Your task to perform on an android device: open app "Grab" (install if not already installed) and enter user name: "interspersion@gmail.com" and password: "aristocrats" Image 0: 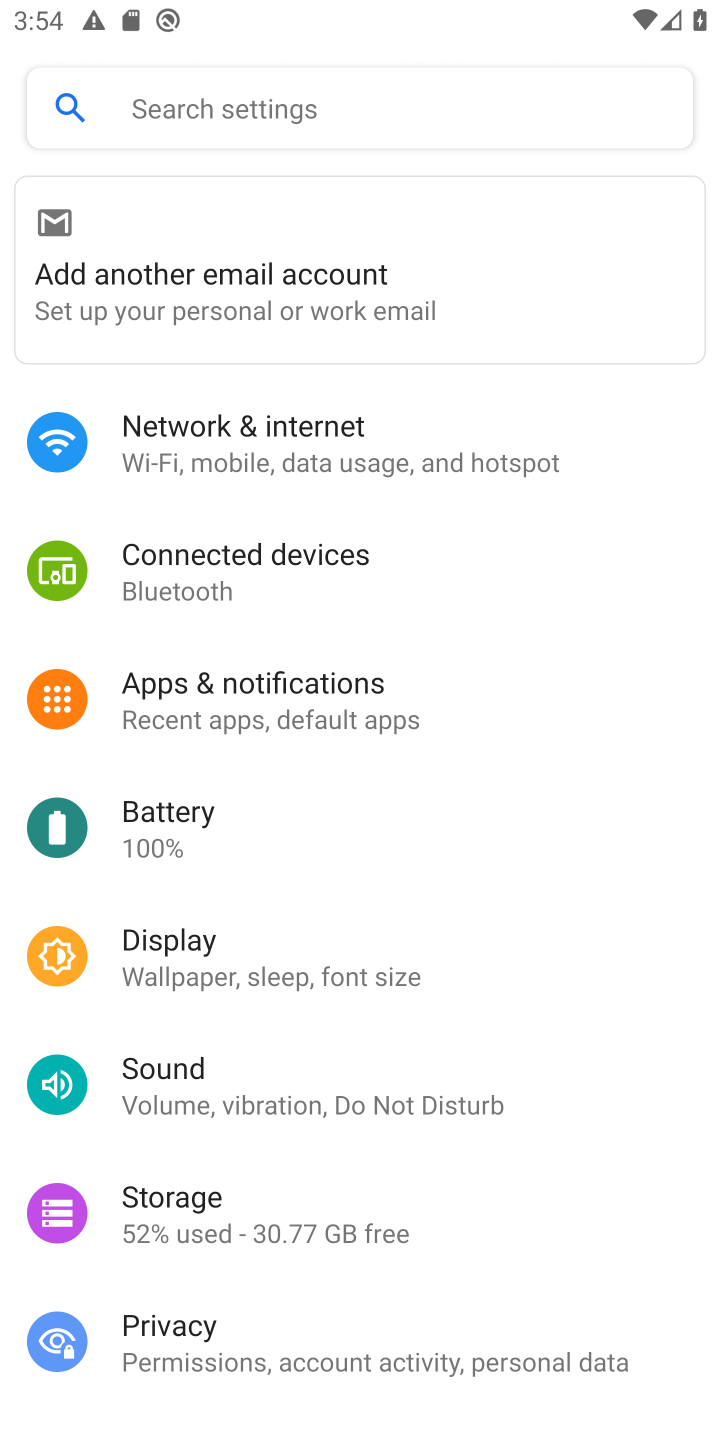
Step 0: press home button
Your task to perform on an android device: open app "Grab" (install if not already installed) and enter user name: "interspersion@gmail.com" and password: "aristocrats" Image 1: 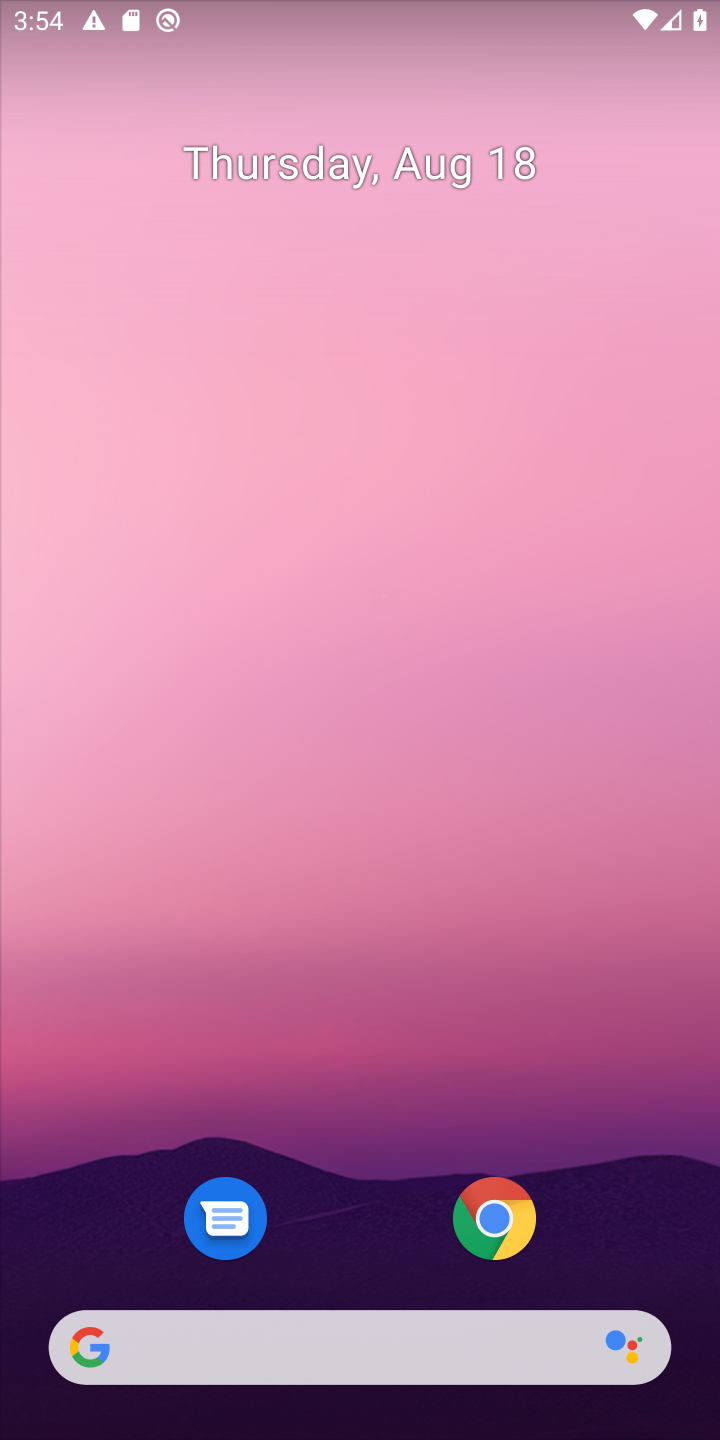
Step 1: drag from (366, 1165) to (364, 333)
Your task to perform on an android device: open app "Grab" (install if not already installed) and enter user name: "interspersion@gmail.com" and password: "aristocrats" Image 2: 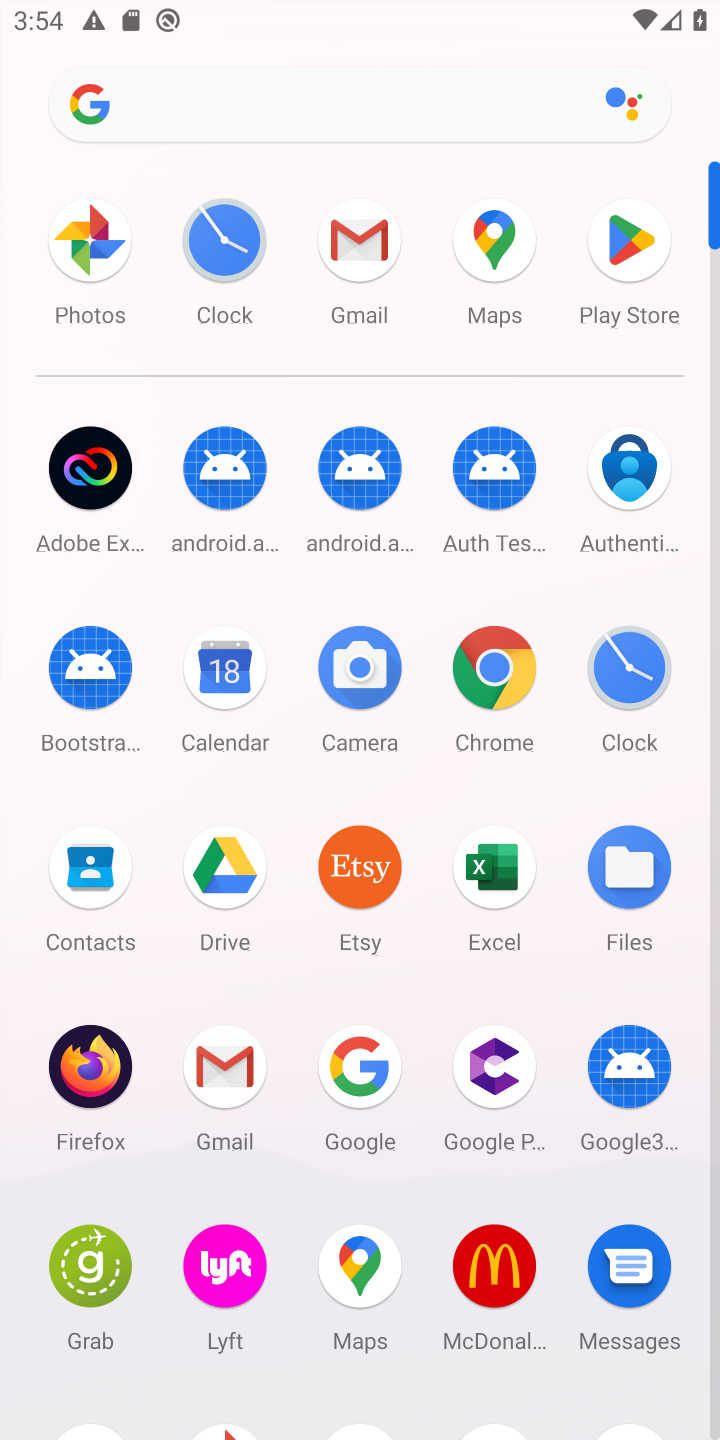
Step 2: click (637, 254)
Your task to perform on an android device: open app "Grab" (install if not already installed) and enter user name: "interspersion@gmail.com" and password: "aristocrats" Image 3: 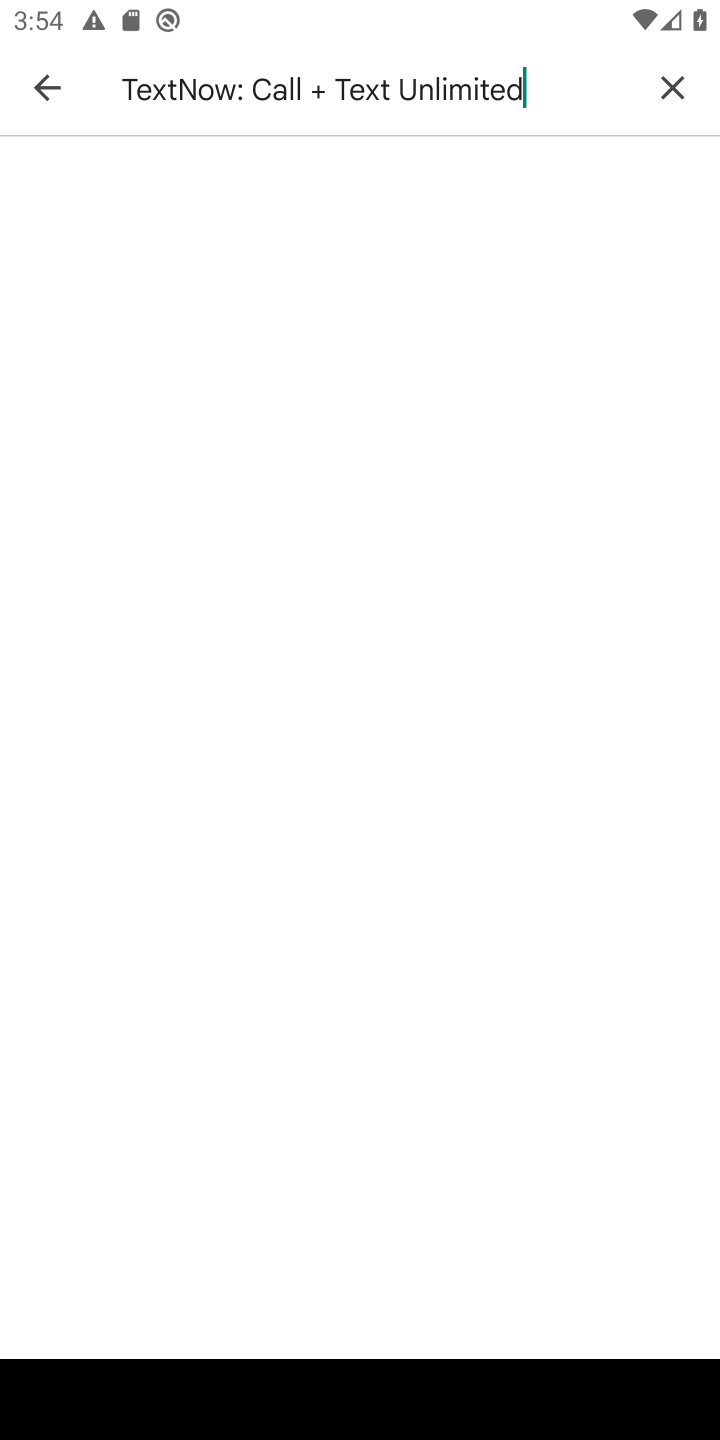
Step 3: click (668, 82)
Your task to perform on an android device: open app "Grab" (install if not already installed) and enter user name: "interspersion@gmail.com" and password: "aristocrats" Image 4: 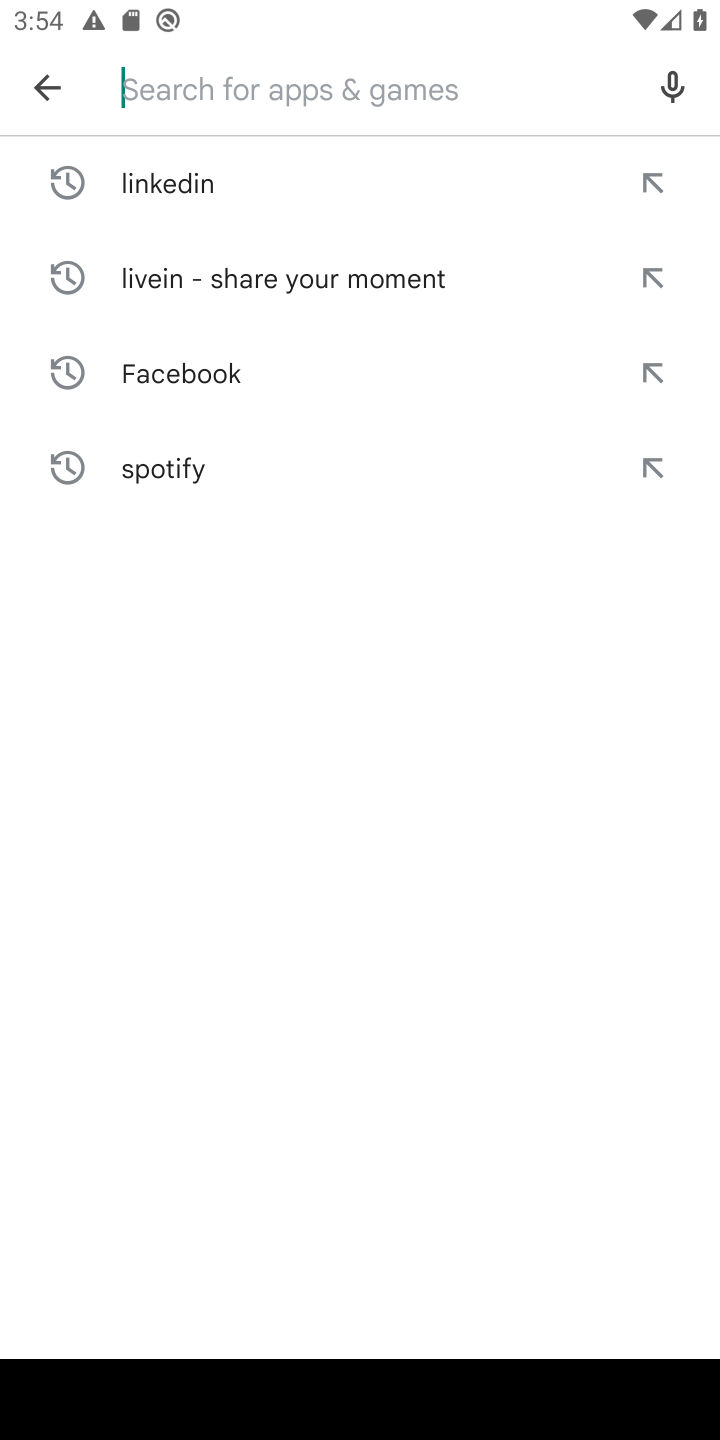
Step 4: type "Grab"
Your task to perform on an android device: open app "Grab" (install if not already installed) and enter user name: "interspersion@gmail.com" and password: "aristocrats" Image 5: 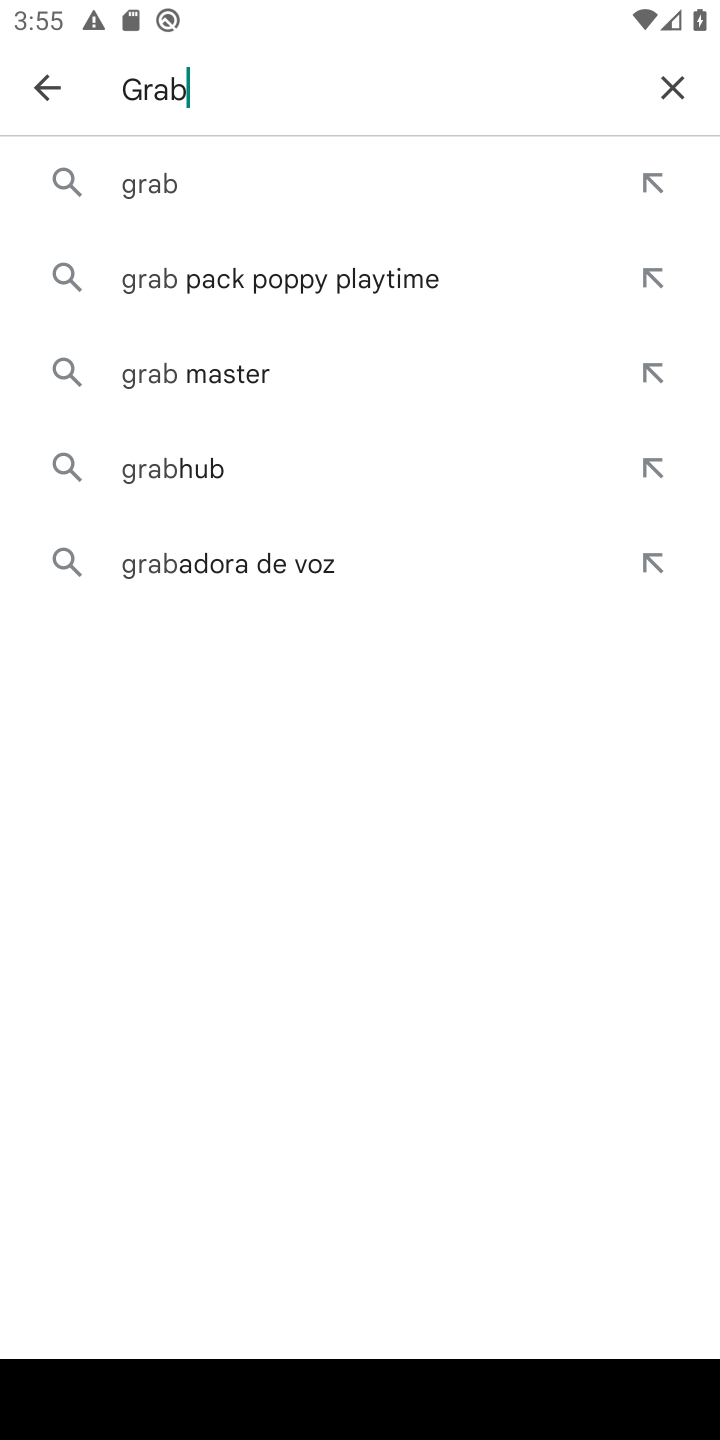
Step 5: click (161, 162)
Your task to perform on an android device: open app "Grab" (install if not already installed) and enter user name: "interspersion@gmail.com" and password: "aristocrats" Image 6: 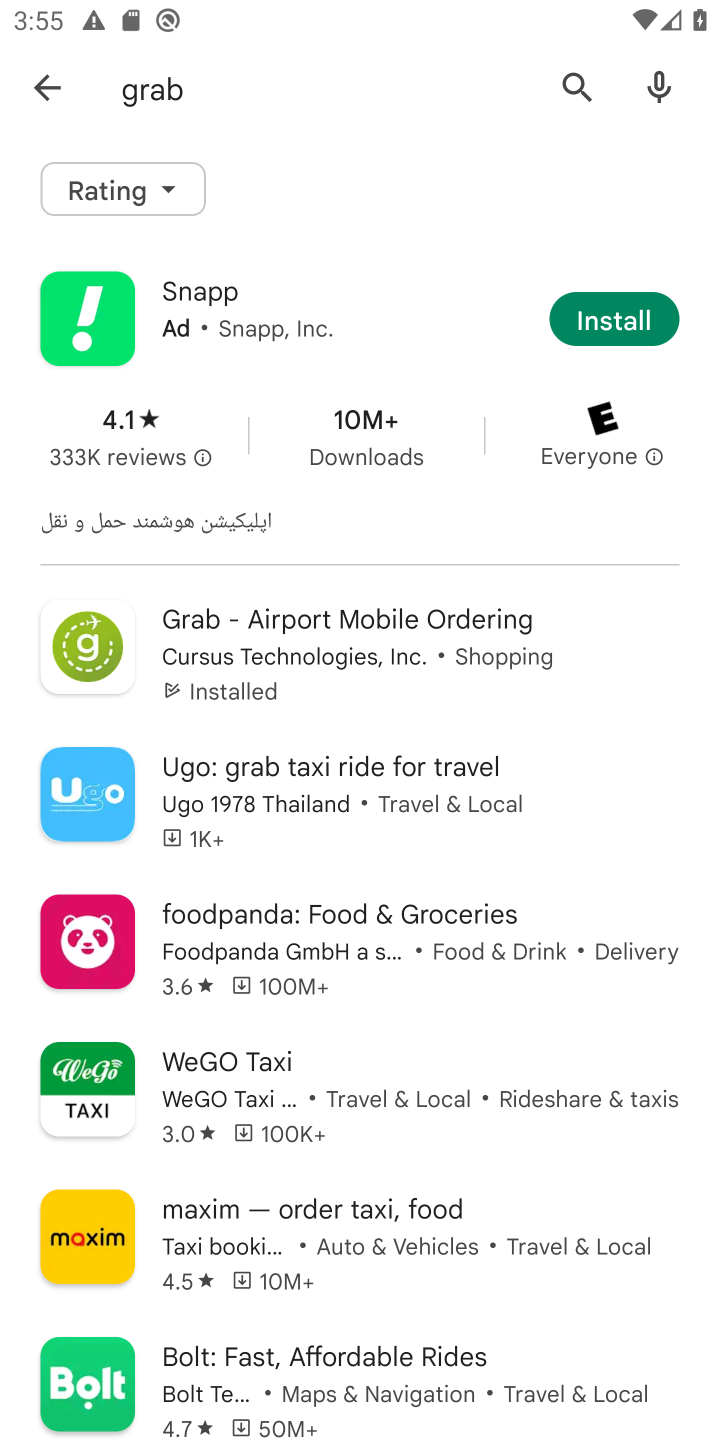
Step 6: click (597, 307)
Your task to perform on an android device: open app "Grab" (install if not already installed) and enter user name: "interspersion@gmail.com" and password: "aristocrats" Image 7: 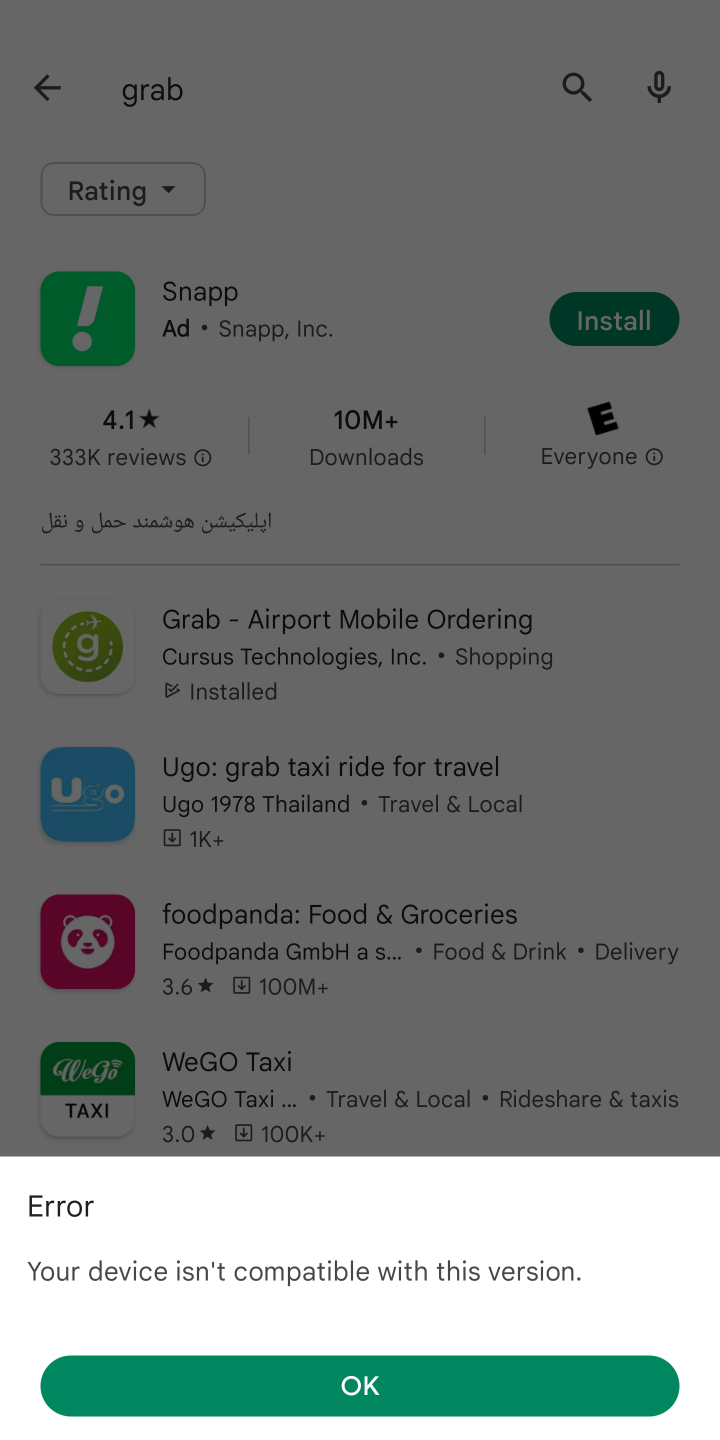
Step 7: click (425, 1384)
Your task to perform on an android device: open app "Grab" (install if not already installed) and enter user name: "interspersion@gmail.com" and password: "aristocrats" Image 8: 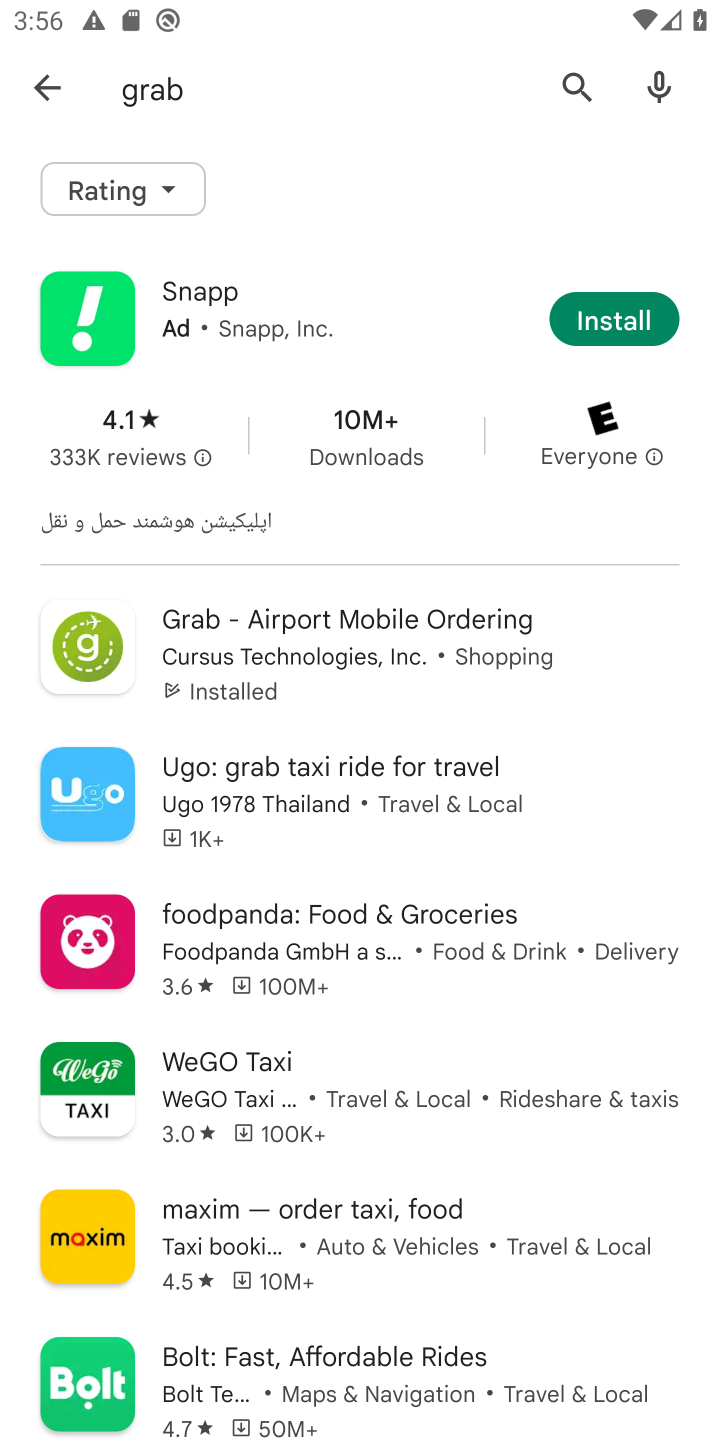
Step 8: click (624, 329)
Your task to perform on an android device: open app "Grab" (install if not already installed) and enter user name: "interspersion@gmail.com" and password: "aristocrats" Image 9: 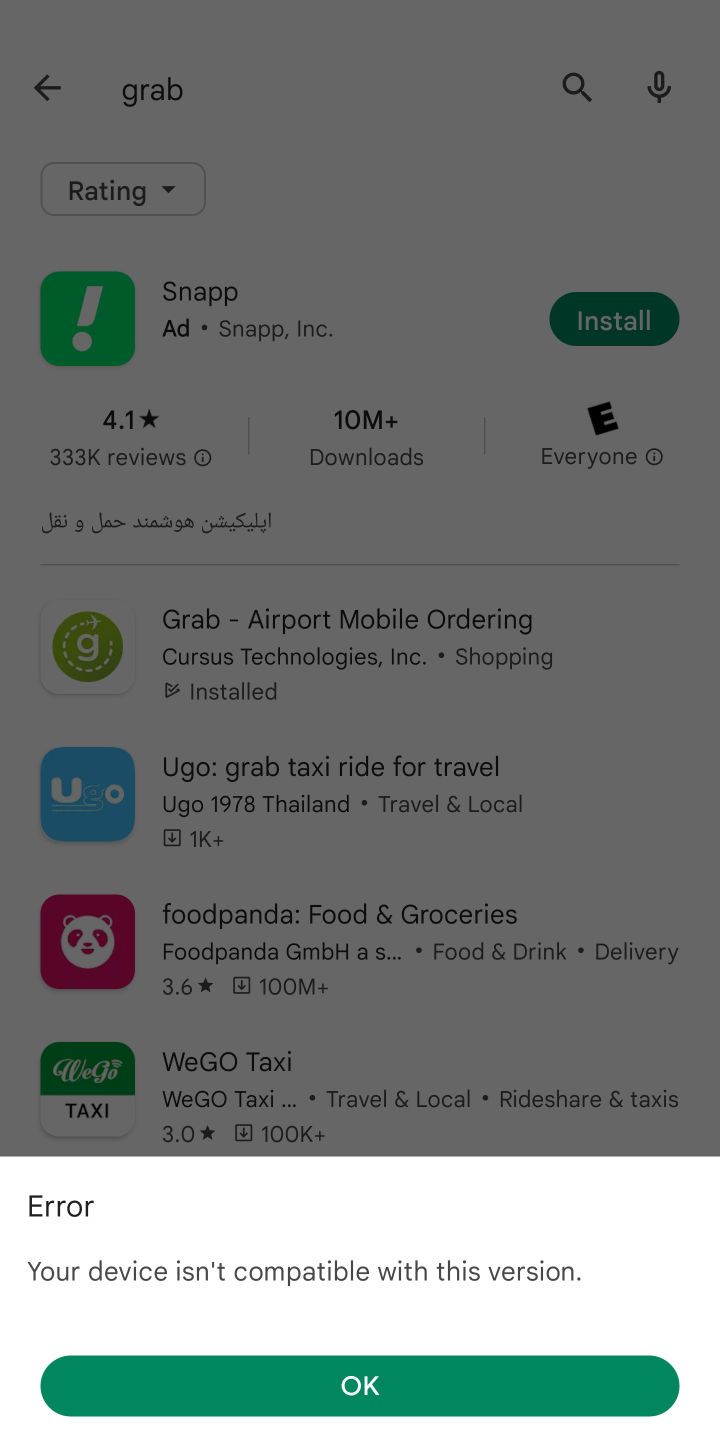
Step 9: task complete